Your task to perform on an android device: Go to accessibility settings Image 0: 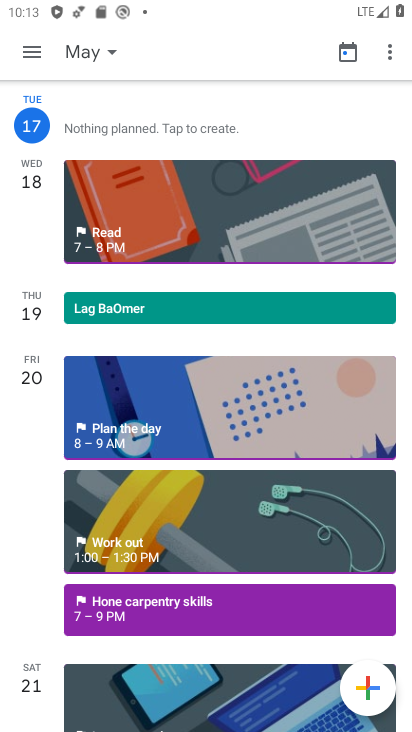
Step 0: press home button
Your task to perform on an android device: Go to accessibility settings Image 1: 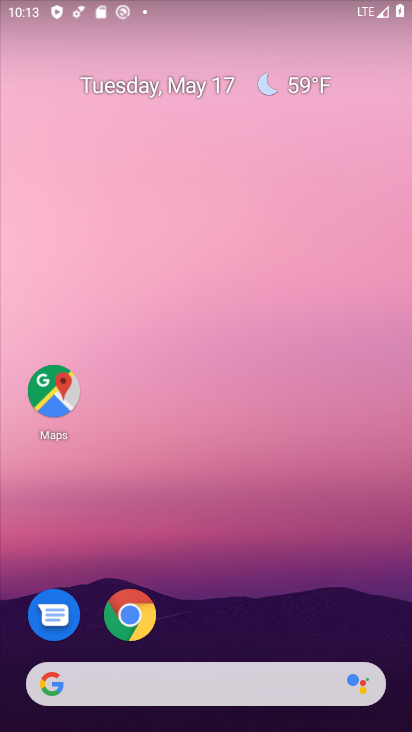
Step 1: drag from (198, 697) to (340, 143)
Your task to perform on an android device: Go to accessibility settings Image 2: 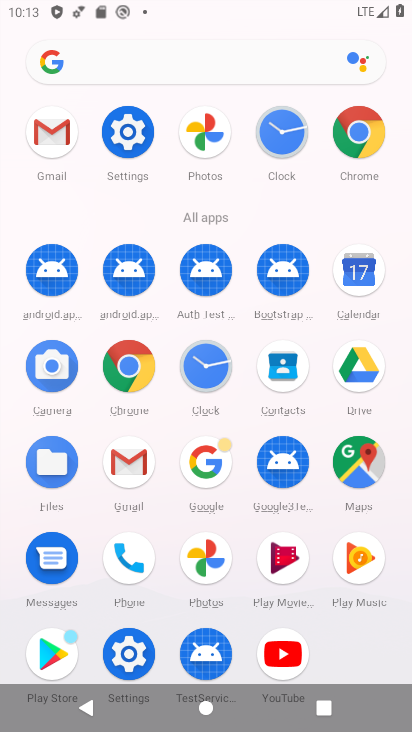
Step 2: click (133, 125)
Your task to perform on an android device: Go to accessibility settings Image 3: 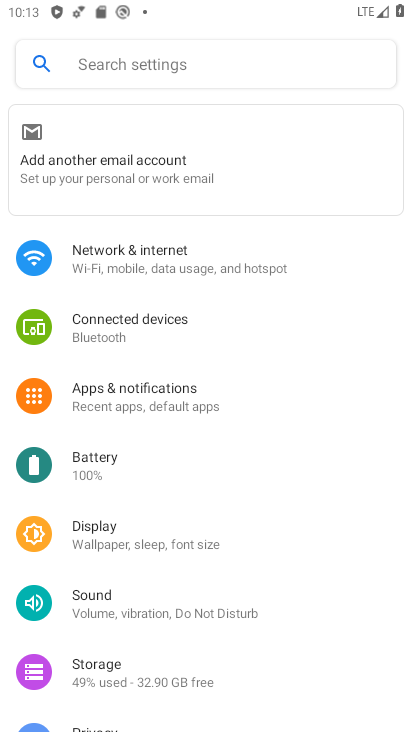
Step 3: drag from (257, 652) to (315, 177)
Your task to perform on an android device: Go to accessibility settings Image 4: 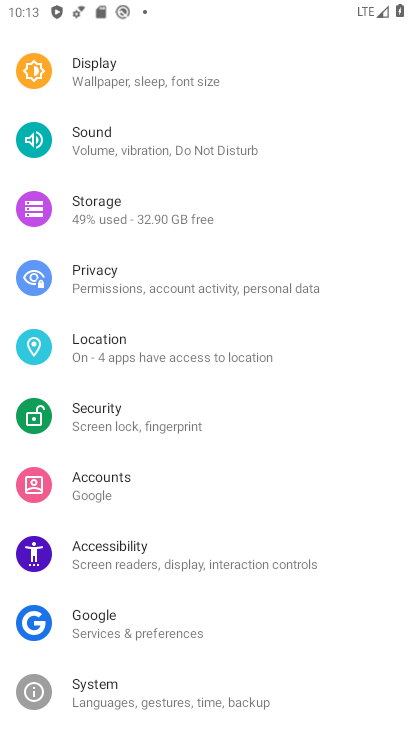
Step 4: click (159, 559)
Your task to perform on an android device: Go to accessibility settings Image 5: 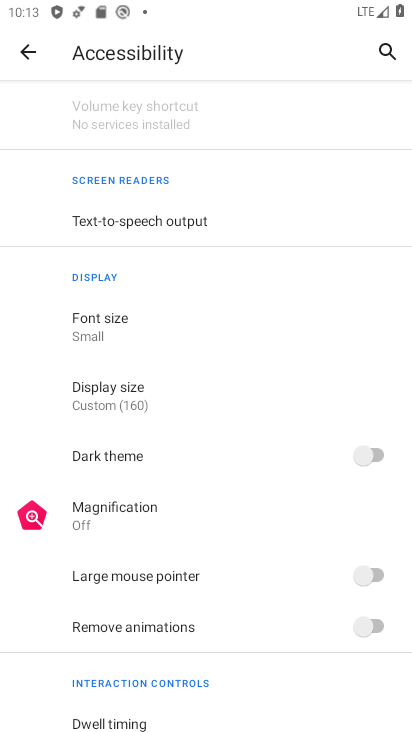
Step 5: task complete